Your task to perform on an android device: turn notification dots off Image 0: 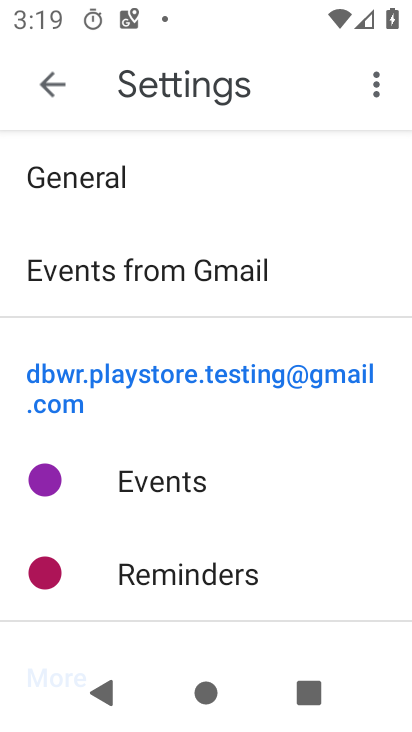
Step 0: press home button
Your task to perform on an android device: turn notification dots off Image 1: 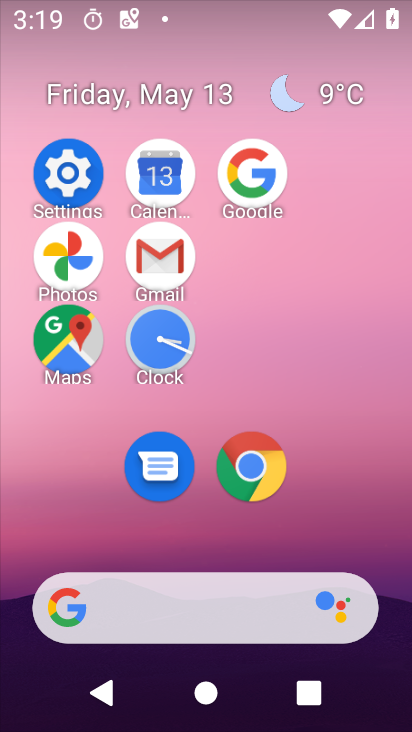
Step 1: click (66, 185)
Your task to perform on an android device: turn notification dots off Image 2: 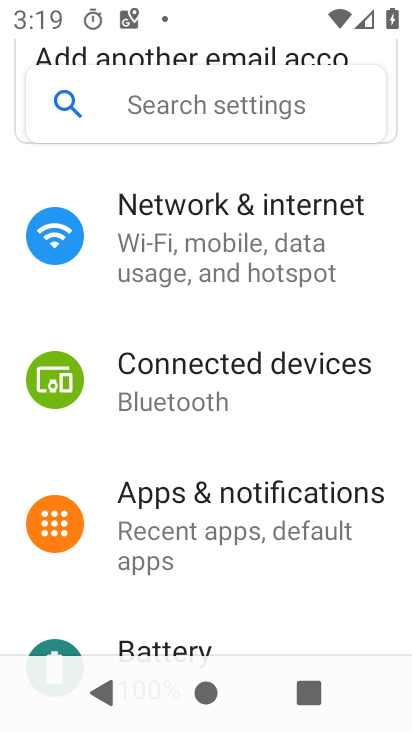
Step 2: click (256, 507)
Your task to perform on an android device: turn notification dots off Image 3: 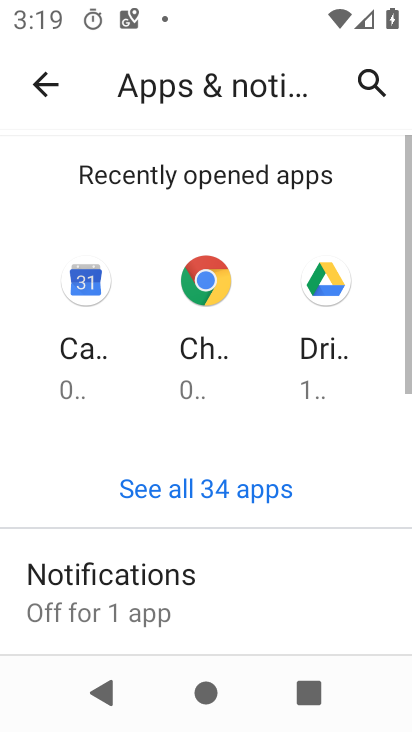
Step 3: click (136, 564)
Your task to perform on an android device: turn notification dots off Image 4: 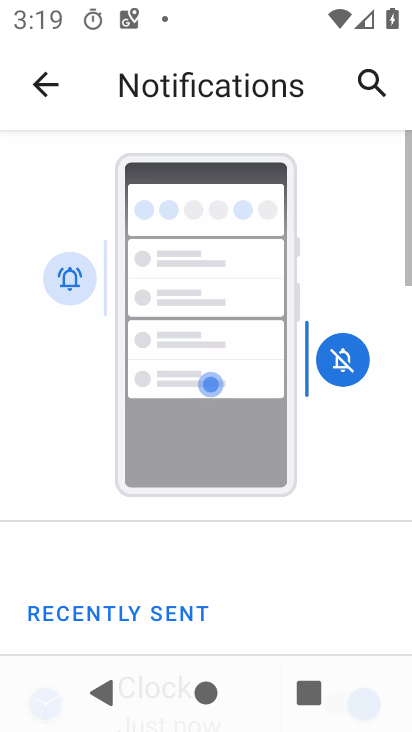
Step 4: drag from (215, 543) to (230, 139)
Your task to perform on an android device: turn notification dots off Image 5: 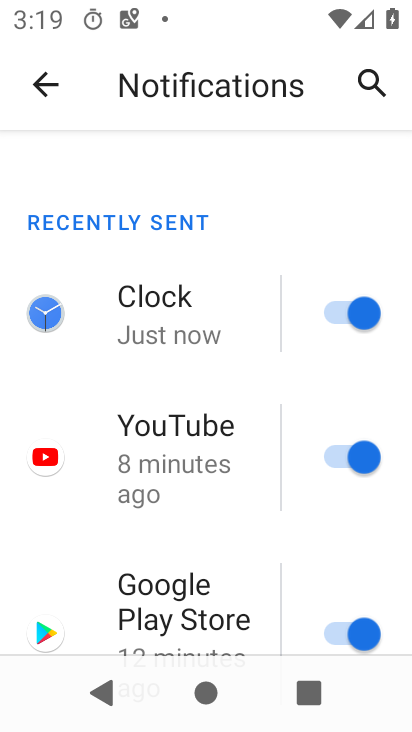
Step 5: drag from (253, 664) to (231, 275)
Your task to perform on an android device: turn notification dots off Image 6: 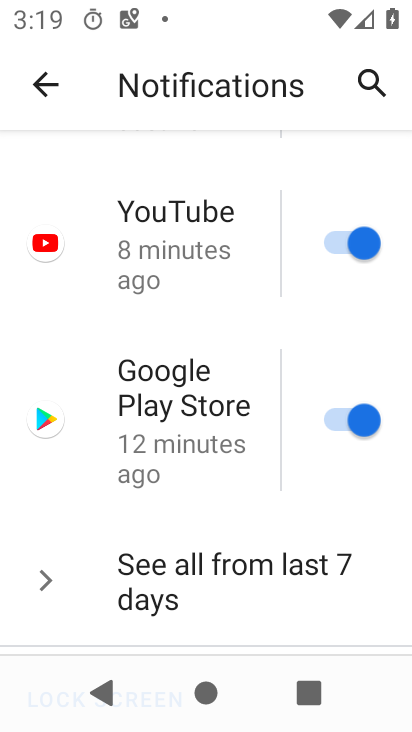
Step 6: drag from (270, 604) to (242, 156)
Your task to perform on an android device: turn notification dots off Image 7: 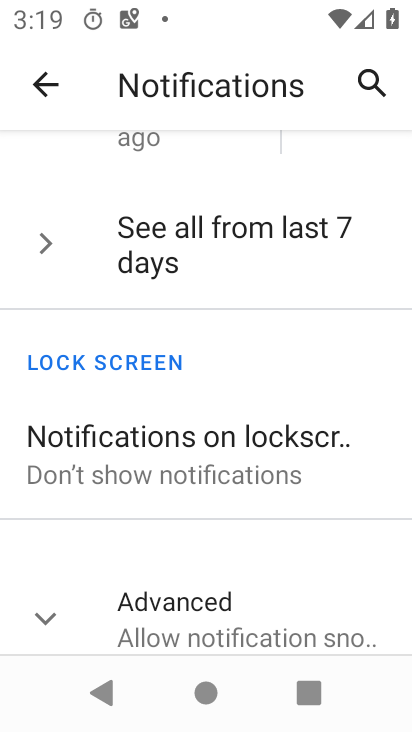
Step 7: click (242, 630)
Your task to perform on an android device: turn notification dots off Image 8: 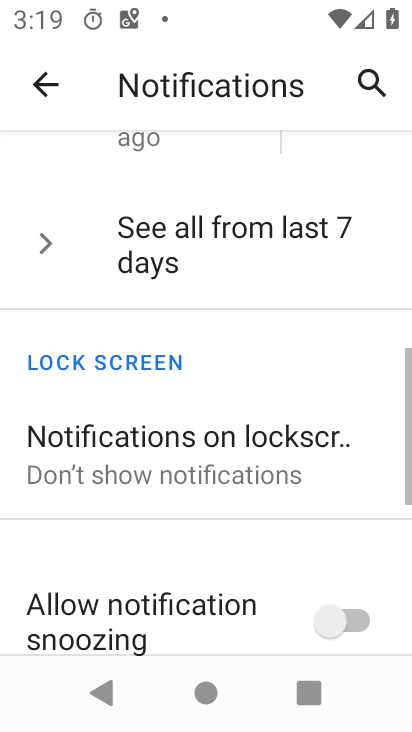
Step 8: drag from (243, 618) to (244, 231)
Your task to perform on an android device: turn notification dots off Image 9: 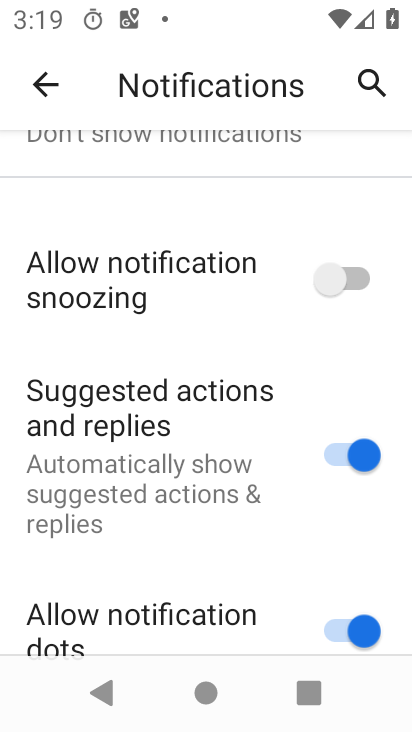
Step 9: click (367, 637)
Your task to perform on an android device: turn notification dots off Image 10: 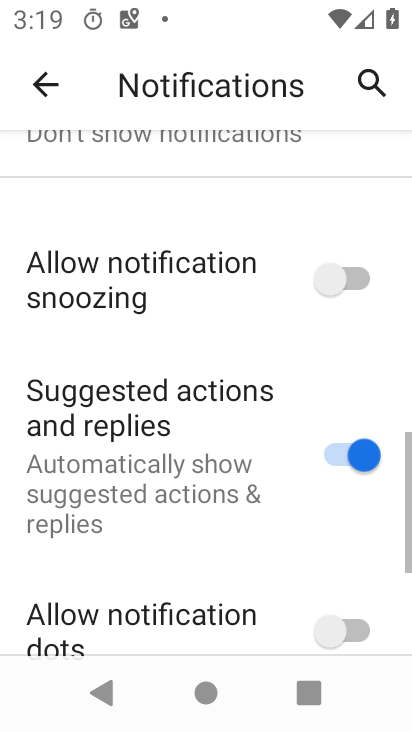
Step 10: task complete